Your task to perform on an android device: turn on showing notifications on the lock screen Image 0: 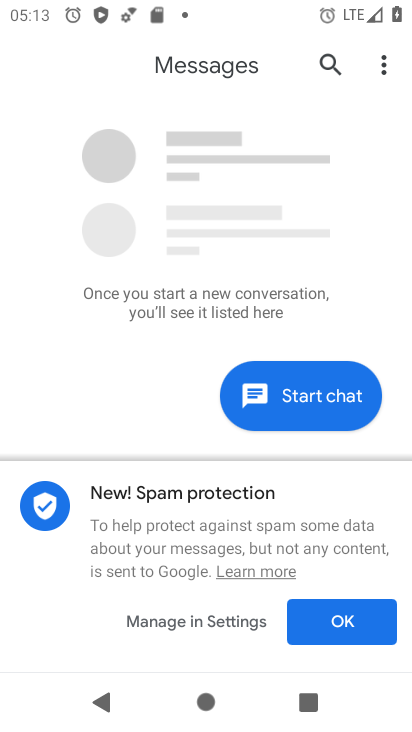
Step 0: press back button
Your task to perform on an android device: turn on showing notifications on the lock screen Image 1: 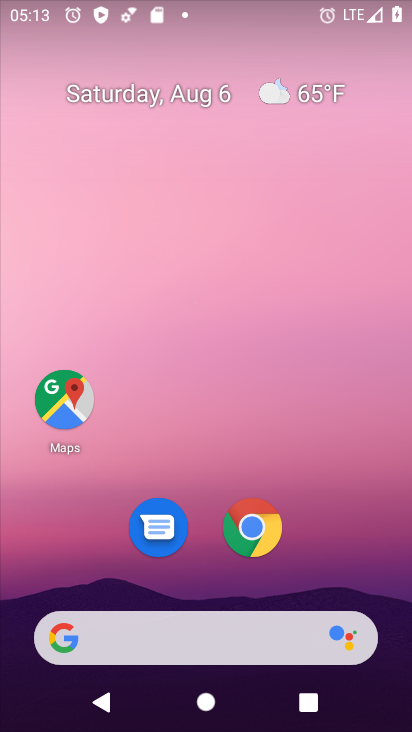
Step 1: drag from (169, 620) to (182, 80)
Your task to perform on an android device: turn on showing notifications on the lock screen Image 2: 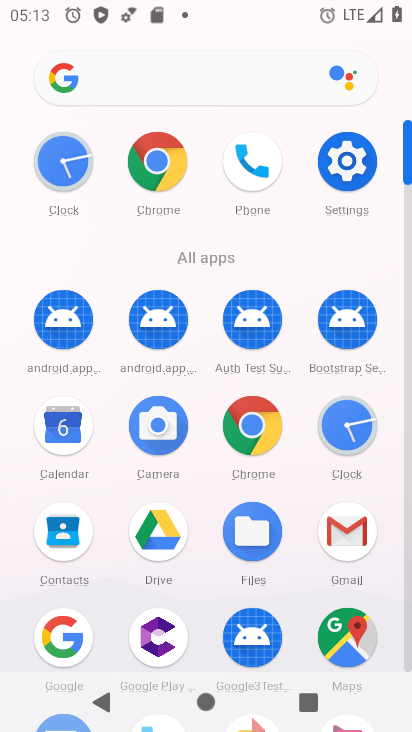
Step 2: click (323, 172)
Your task to perform on an android device: turn on showing notifications on the lock screen Image 3: 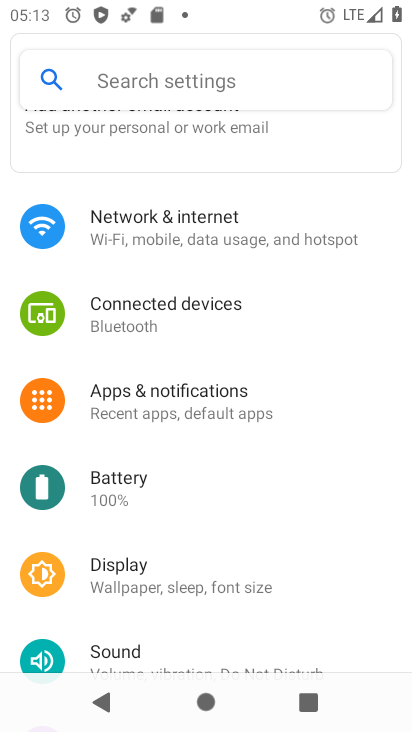
Step 3: click (189, 404)
Your task to perform on an android device: turn on showing notifications on the lock screen Image 4: 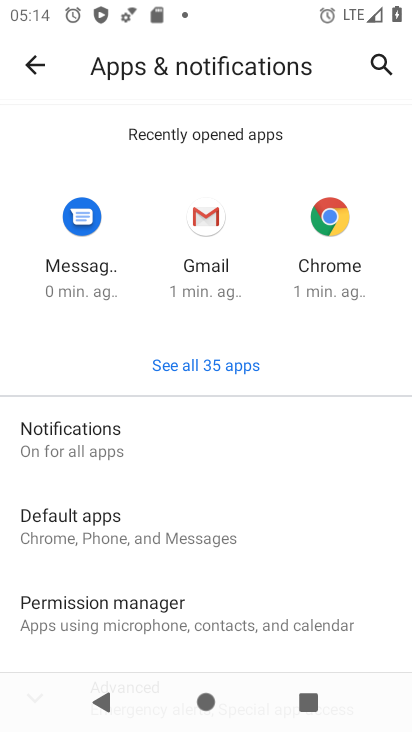
Step 4: click (111, 450)
Your task to perform on an android device: turn on showing notifications on the lock screen Image 5: 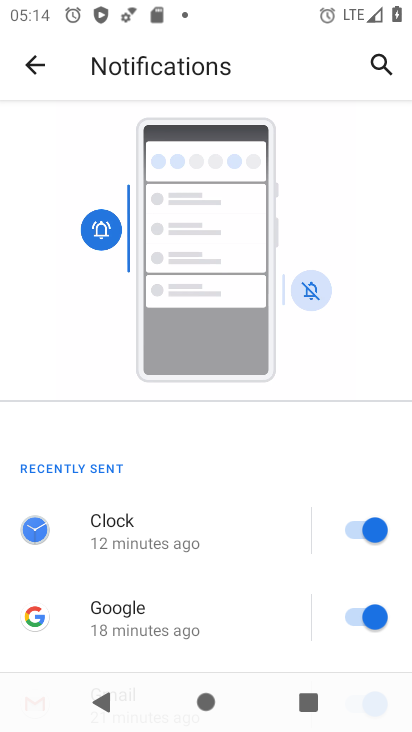
Step 5: drag from (169, 575) to (201, 67)
Your task to perform on an android device: turn on showing notifications on the lock screen Image 6: 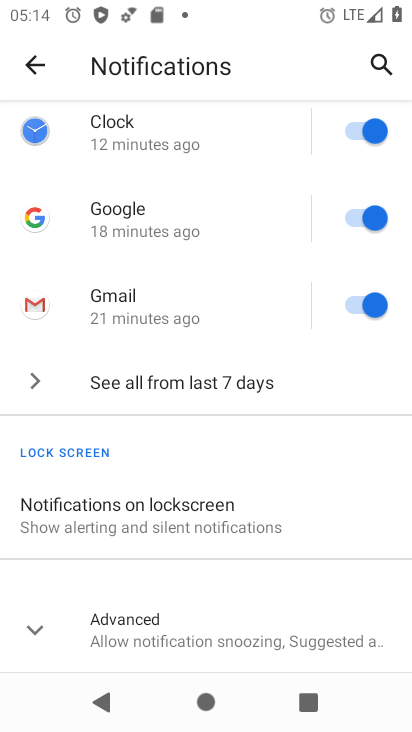
Step 6: click (156, 516)
Your task to perform on an android device: turn on showing notifications on the lock screen Image 7: 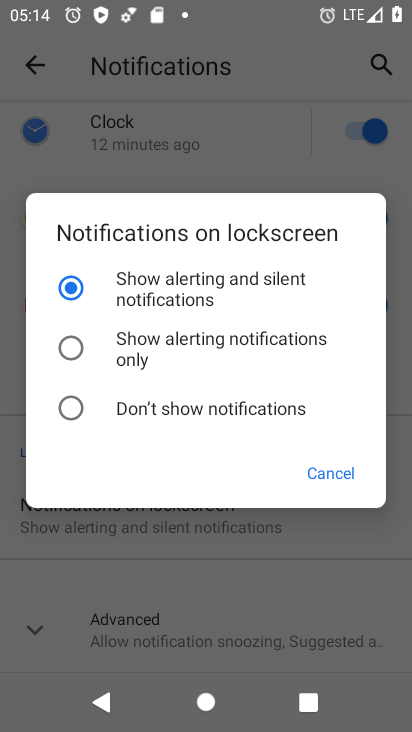
Step 7: click (202, 299)
Your task to perform on an android device: turn on showing notifications on the lock screen Image 8: 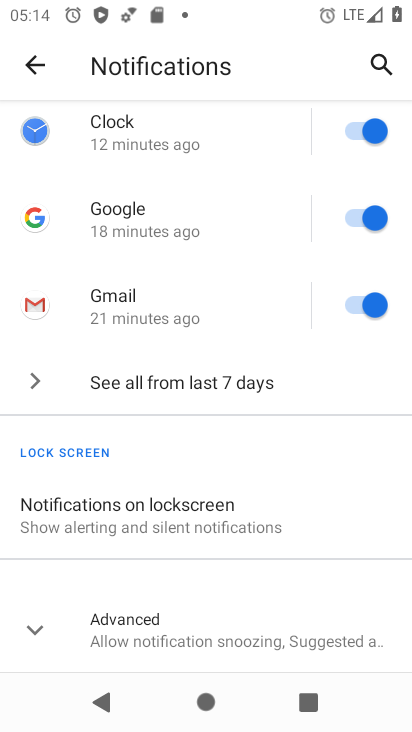
Step 8: task complete